Your task to perform on an android device: Show me productivity apps on the Play Store Image 0: 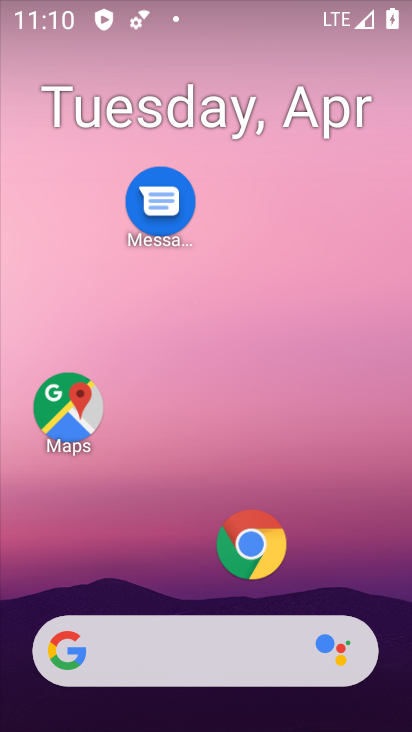
Step 0: drag from (195, 582) to (266, 52)
Your task to perform on an android device: Show me productivity apps on the Play Store Image 1: 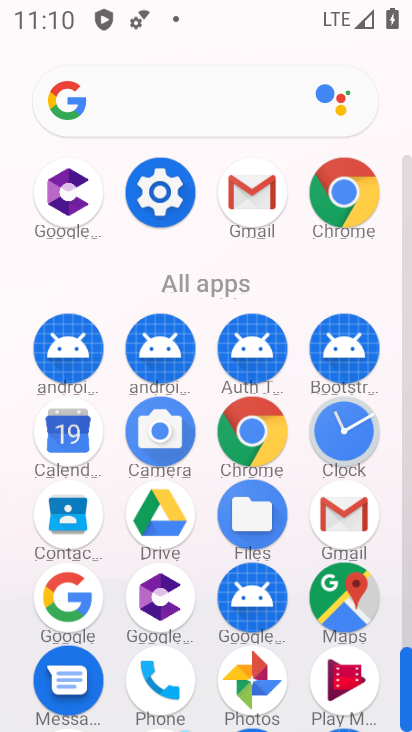
Step 1: drag from (201, 630) to (308, 207)
Your task to perform on an android device: Show me productivity apps on the Play Store Image 2: 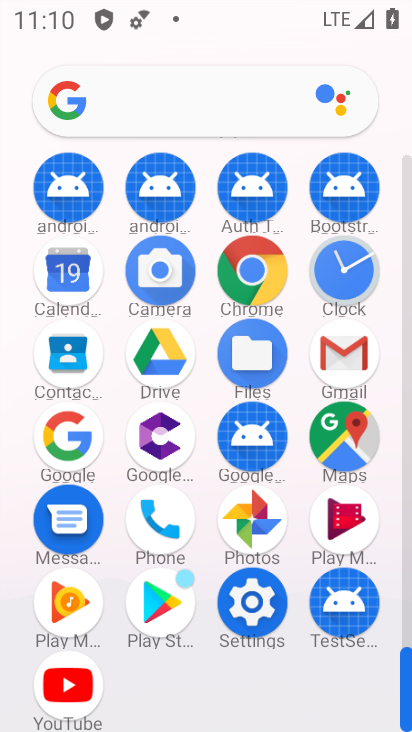
Step 2: click (153, 591)
Your task to perform on an android device: Show me productivity apps on the Play Store Image 3: 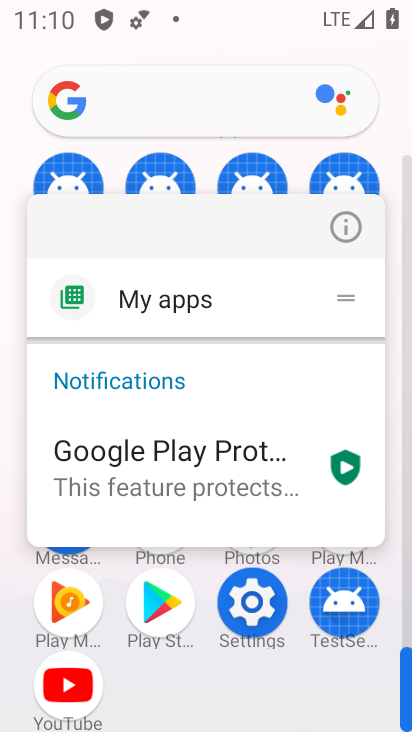
Step 3: click (149, 592)
Your task to perform on an android device: Show me productivity apps on the Play Store Image 4: 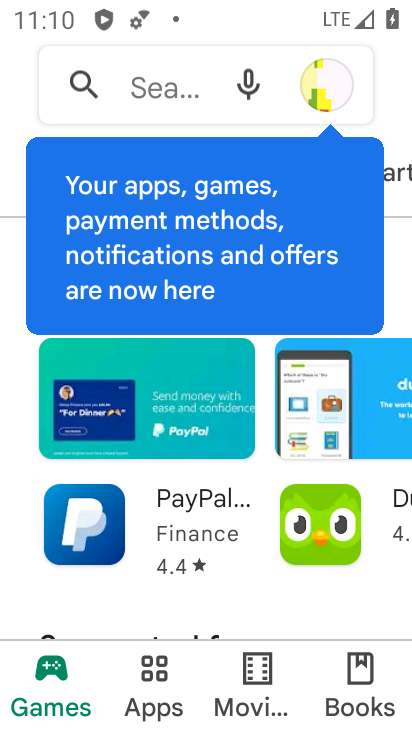
Step 4: click (143, 687)
Your task to perform on an android device: Show me productivity apps on the Play Store Image 5: 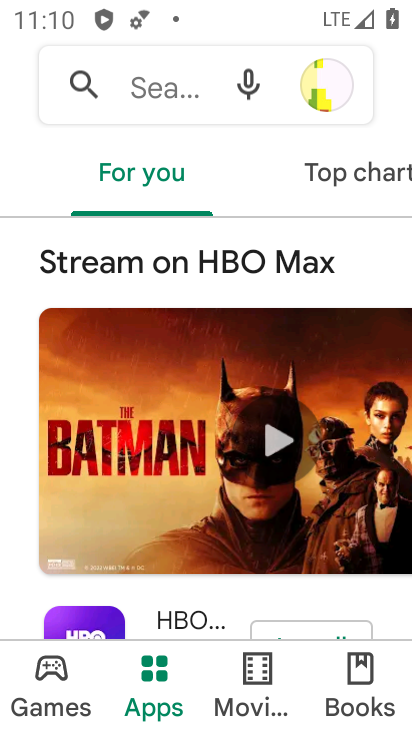
Step 5: drag from (290, 175) to (1, 180)
Your task to perform on an android device: Show me productivity apps on the Play Store Image 6: 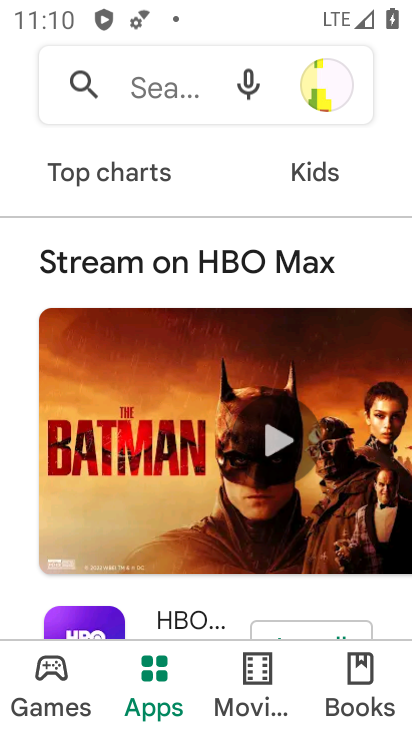
Step 6: drag from (291, 183) to (0, 152)
Your task to perform on an android device: Show me productivity apps on the Play Store Image 7: 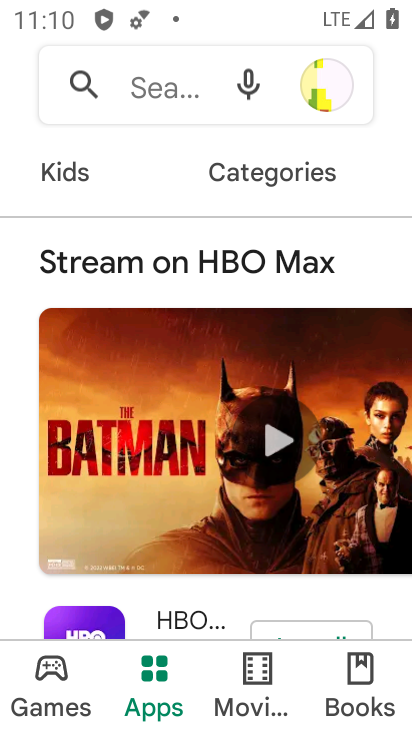
Step 7: click (269, 176)
Your task to perform on an android device: Show me productivity apps on the Play Store Image 8: 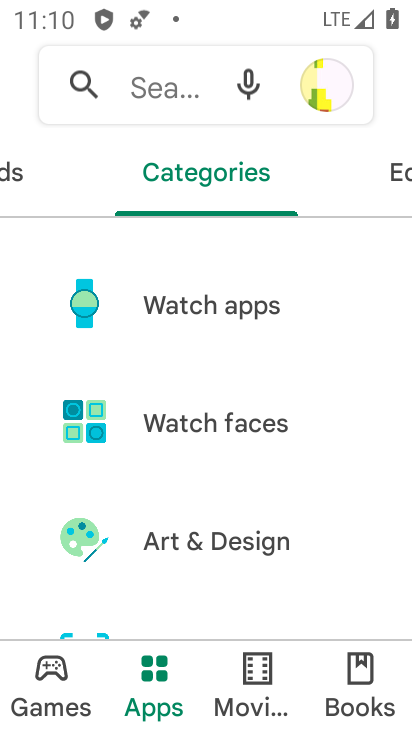
Step 8: drag from (204, 486) to (230, 173)
Your task to perform on an android device: Show me productivity apps on the Play Store Image 9: 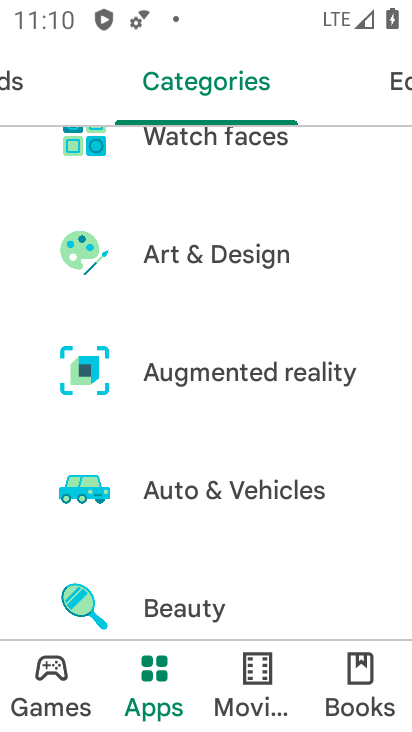
Step 9: drag from (186, 491) to (255, 69)
Your task to perform on an android device: Show me productivity apps on the Play Store Image 10: 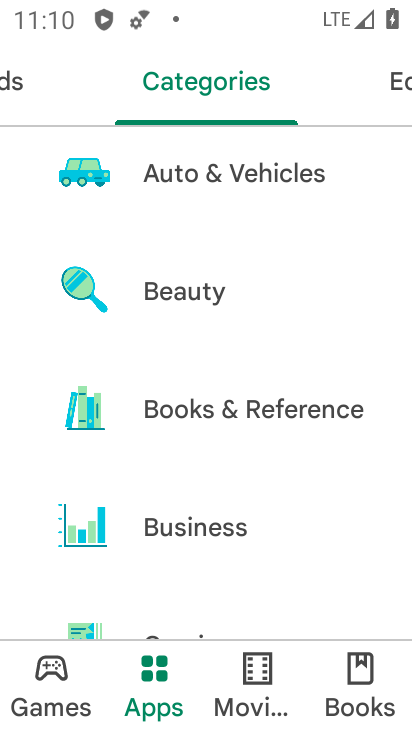
Step 10: drag from (203, 498) to (263, 125)
Your task to perform on an android device: Show me productivity apps on the Play Store Image 11: 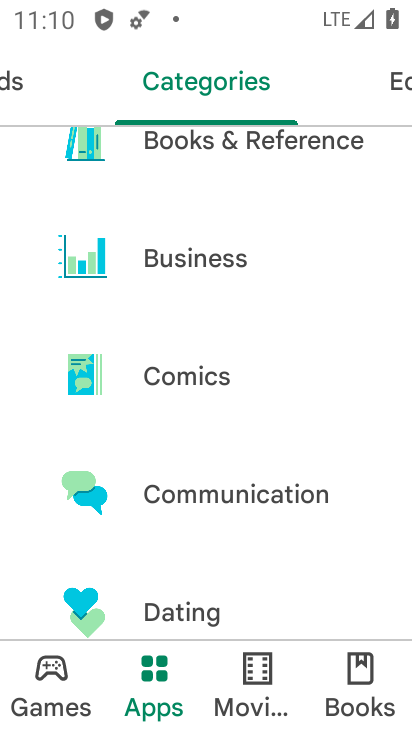
Step 11: drag from (176, 531) to (252, 120)
Your task to perform on an android device: Show me productivity apps on the Play Store Image 12: 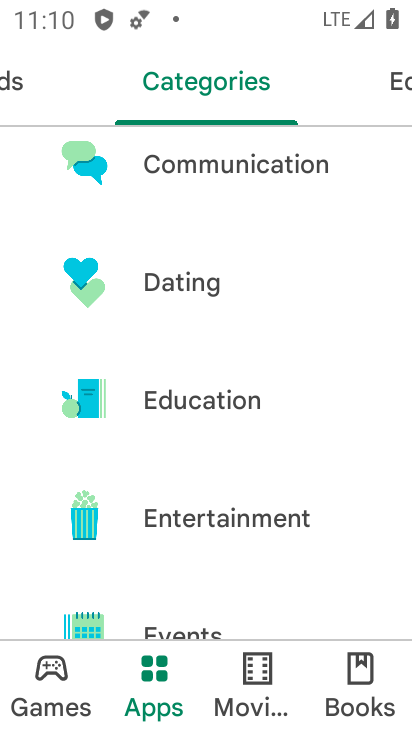
Step 12: drag from (196, 498) to (277, 65)
Your task to perform on an android device: Show me productivity apps on the Play Store Image 13: 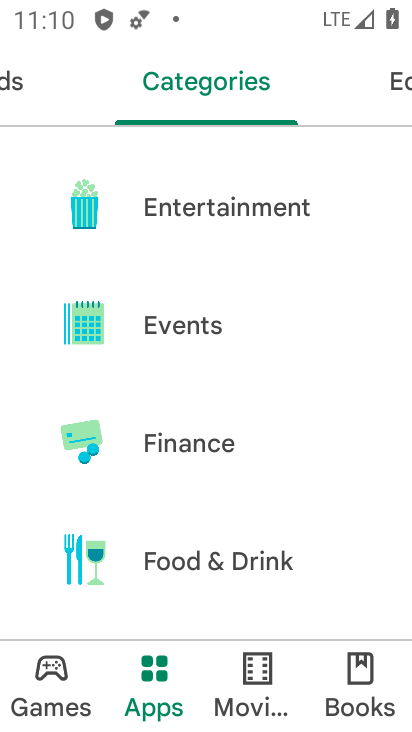
Step 13: drag from (186, 553) to (246, 141)
Your task to perform on an android device: Show me productivity apps on the Play Store Image 14: 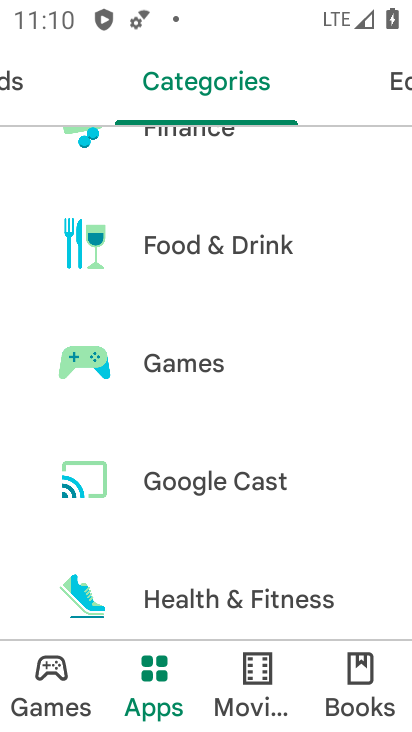
Step 14: drag from (199, 521) to (226, 231)
Your task to perform on an android device: Show me productivity apps on the Play Store Image 15: 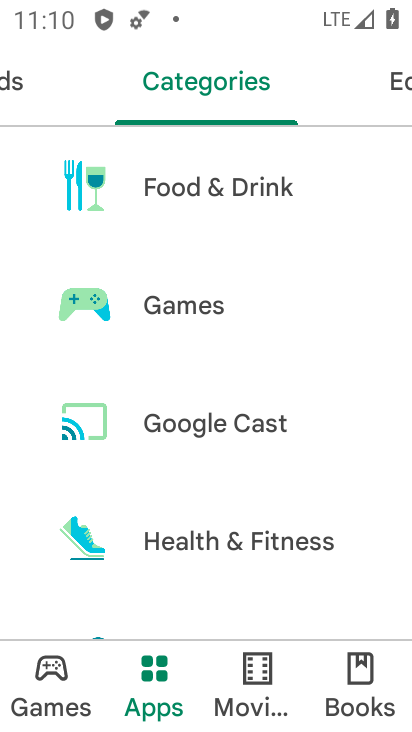
Step 15: drag from (206, 578) to (274, 175)
Your task to perform on an android device: Show me productivity apps on the Play Store Image 16: 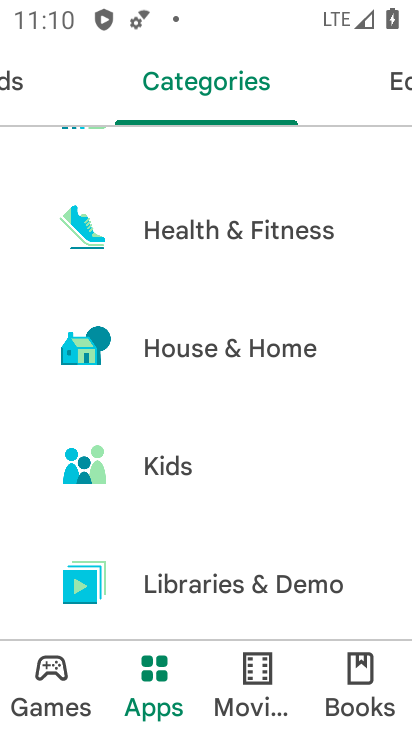
Step 16: drag from (218, 572) to (293, 9)
Your task to perform on an android device: Show me productivity apps on the Play Store Image 17: 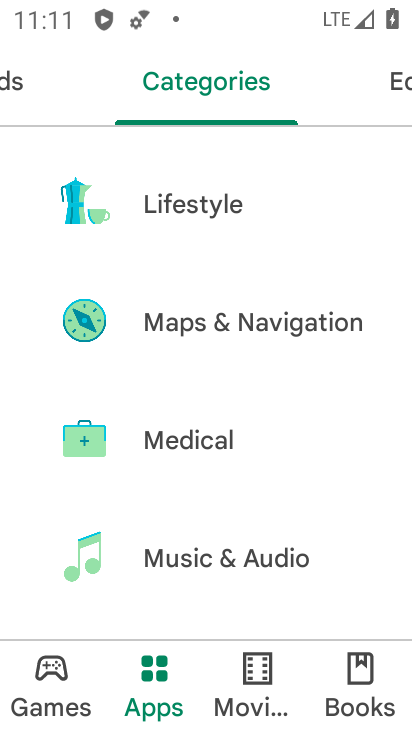
Step 17: drag from (224, 512) to (277, 6)
Your task to perform on an android device: Show me productivity apps on the Play Store Image 18: 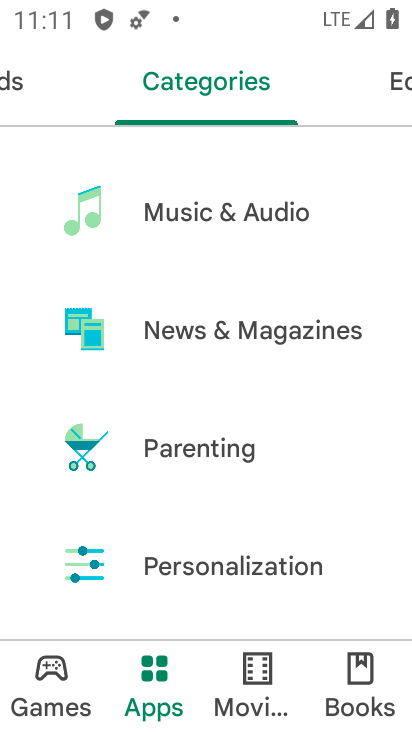
Step 18: drag from (204, 589) to (257, 135)
Your task to perform on an android device: Show me productivity apps on the Play Store Image 19: 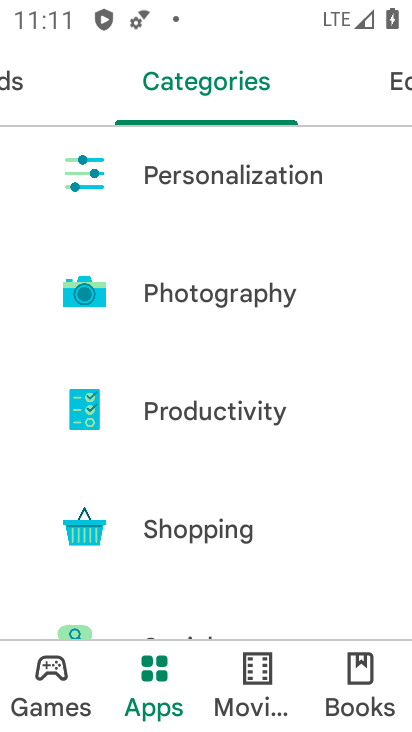
Step 19: drag from (192, 557) to (217, 415)
Your task to perform on an android device: Show me productivity apps on the Play Store Image 20: 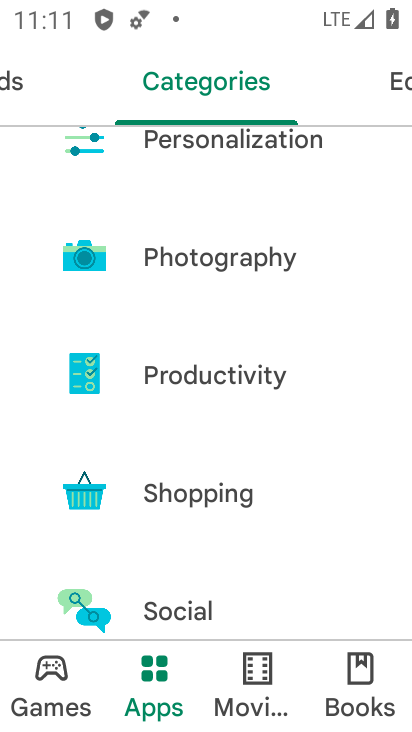
Step 20: click (200, 380)
Your task to perform on an android device: Show me productivity apps on the Play Store Image 21: 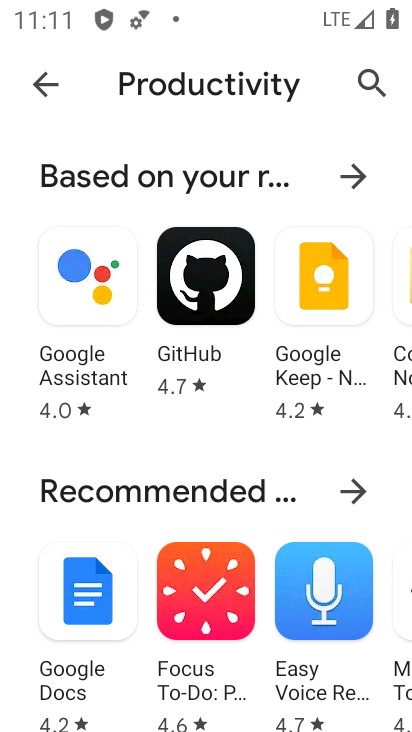
Step 21: task complete